Your task to perform on an android device: change the clock style Image 0: 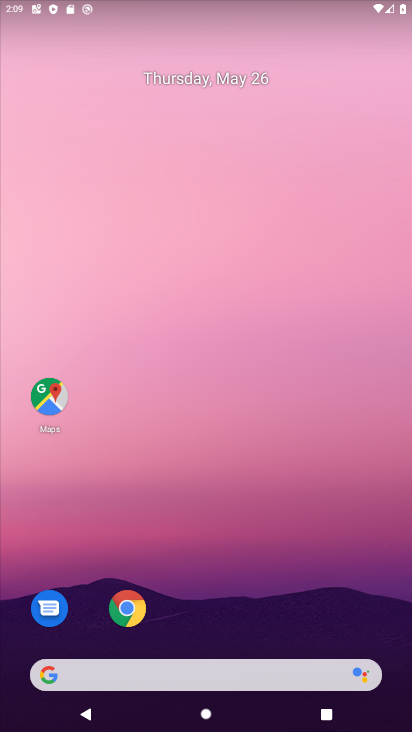
Step 0: click (373, 32)
Your task to perform on an android device: change the clock style Image 1: 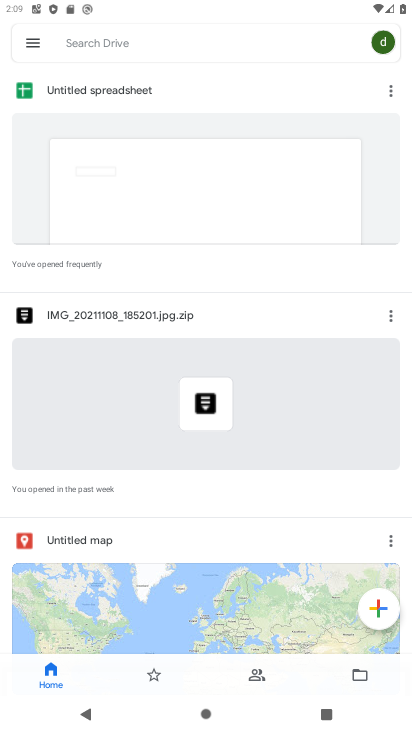
Step 1: press home button
Your task to perform on an android device: change the clock style Image 2: 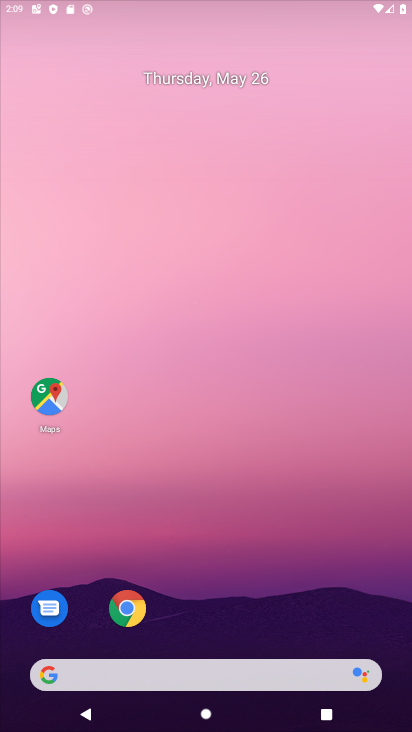
Step 2: drag from (335, 543) to (353, 10)
Your task to perform on an android device: change the clock style Image 3: 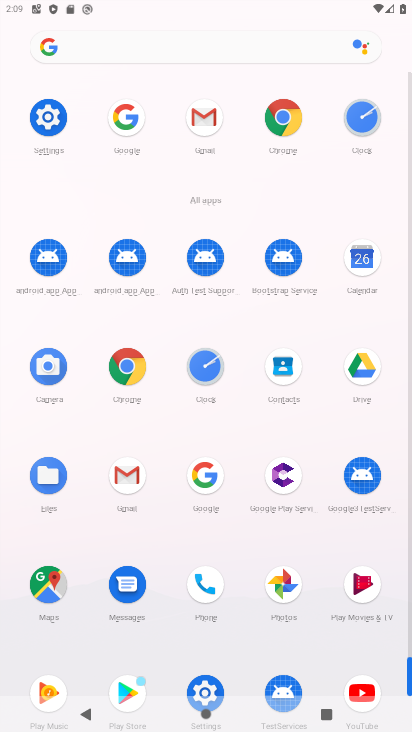
Step 3: click (46, 129)
Your task to perform on an android device: change the clock style Image 4: 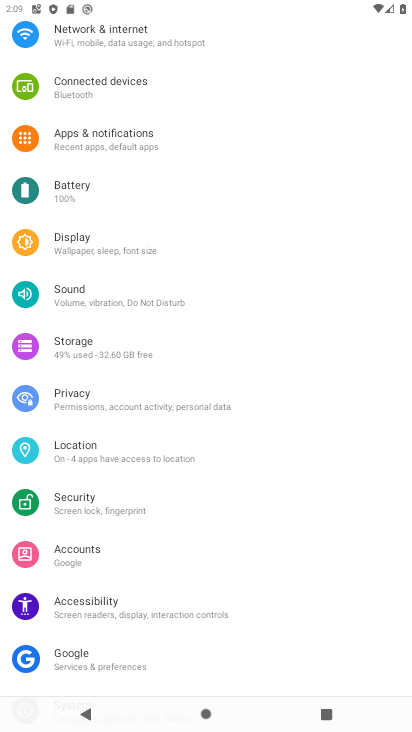
Step 4: task complete